Your task to perform on an android device: turn on sleep mode Image 0: 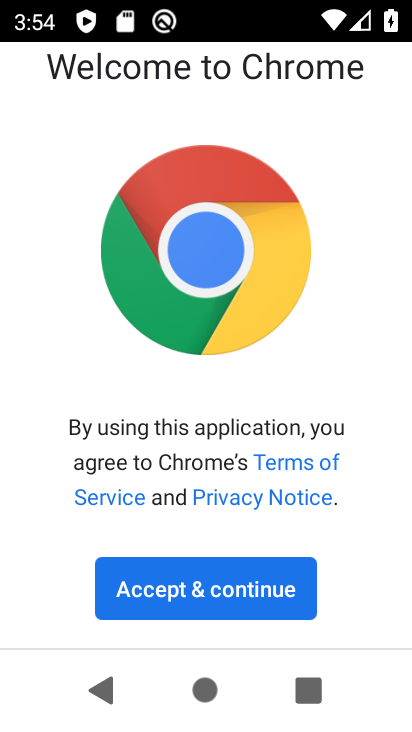
Step 0: press home button
Your task to perform on an android device: turn on sleep mode Image 1: 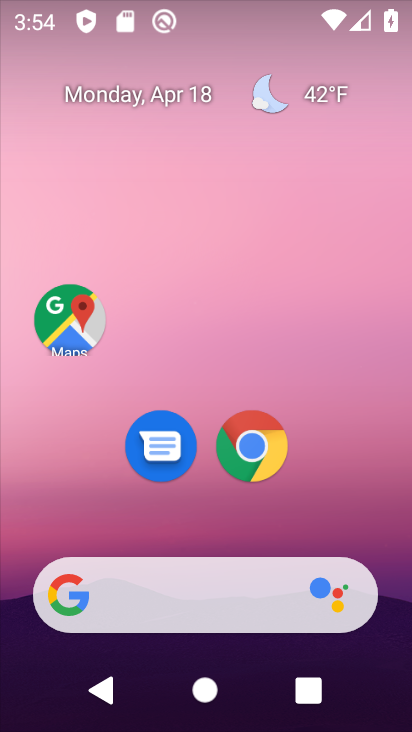
Step 1: drag from (337, 532) to (335, 129)
Your task to perform on an android device: turn on sleep mode Image 2: 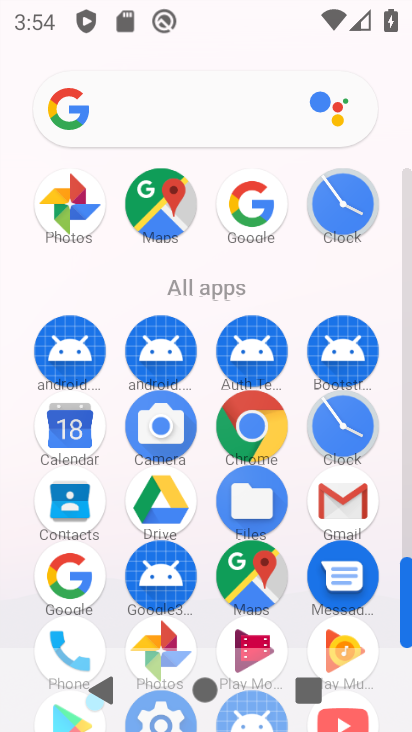
Step 2: drag from (300, 601) to (312, 316)
Your task to perform on an android device: turn on sleep mode Image 3: 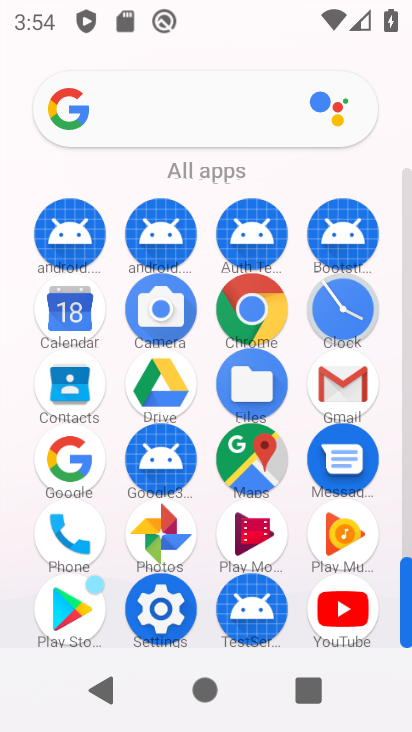
Step 3: click (171, 596)
Your task to perform on an android device: turn on sleep mode Image 4: 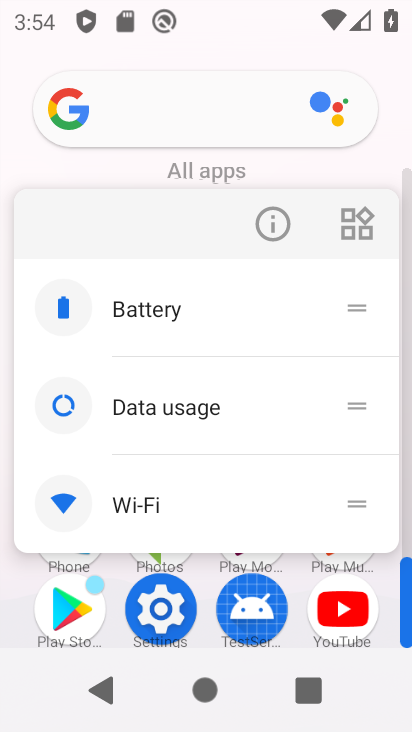
Step 4: click (174, 603)
Your task to perform on an android device: turn on sleep mode Image 5: 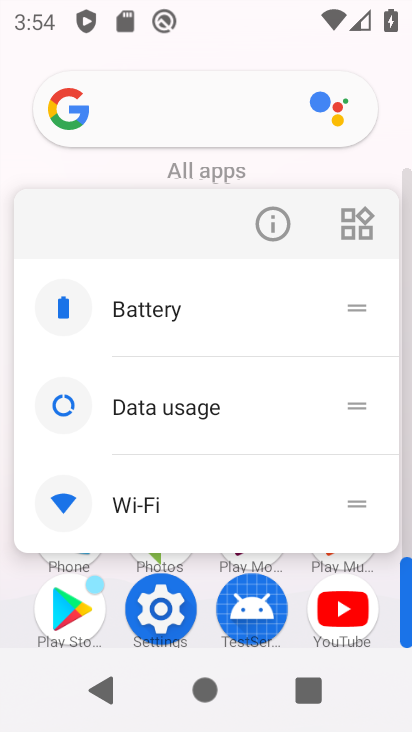
Step 5: click (171, 615)
Your task to perform on an android device: turn on sleep mode Image 6: 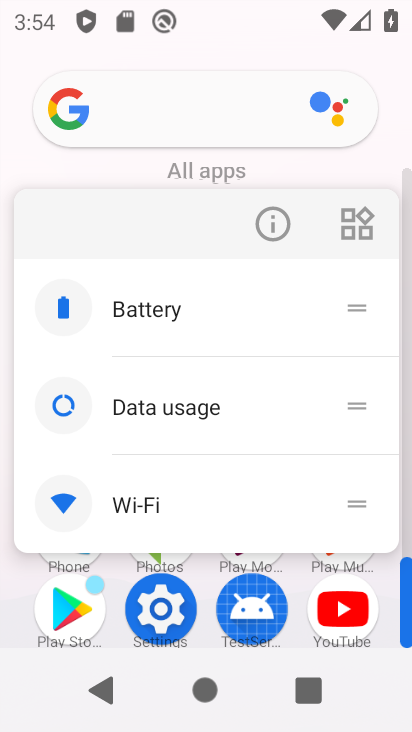
Step 6: click (163, 620)
Your task to perform on an android device: turn on sleep mode Image 7: 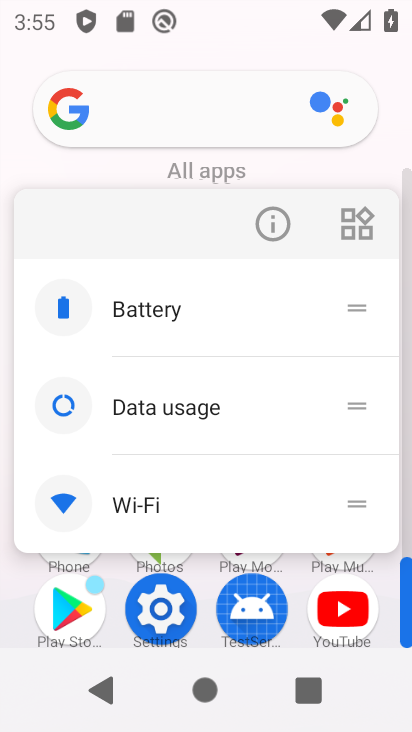
Step 7: click (153, 612)
Your task to perform on an android device: turn on sleep mode Image 8: 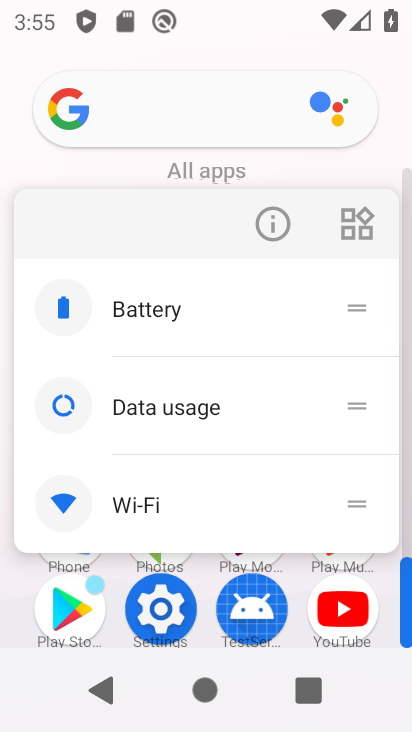
Step 8: click (153, 618)
Your task to perform on an android device: turn on sleep mode Image 9: 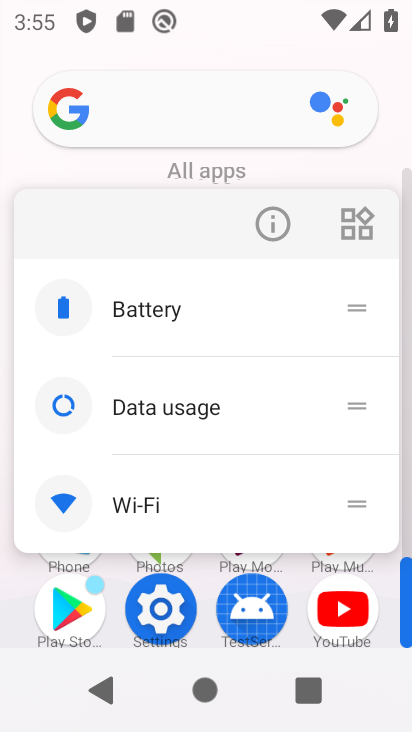
Step 9: click (150, 159)
Your task to perform on an android device: turn on sleep mode Image 10: 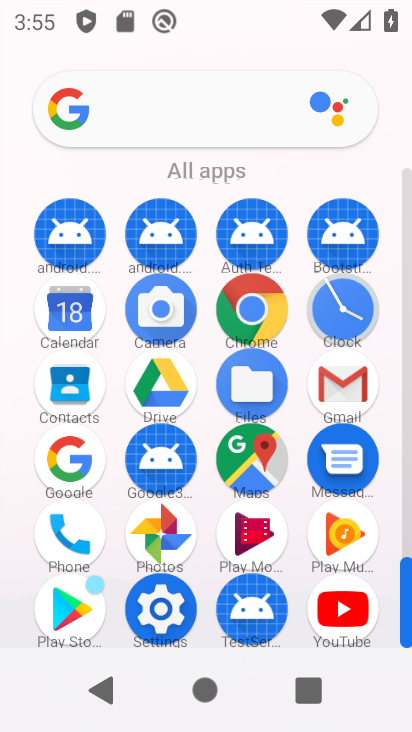
Step 10: drag from (195, 575) to (224, 368)
Your task to perform on an android device: turn on sleep mode Image 11: 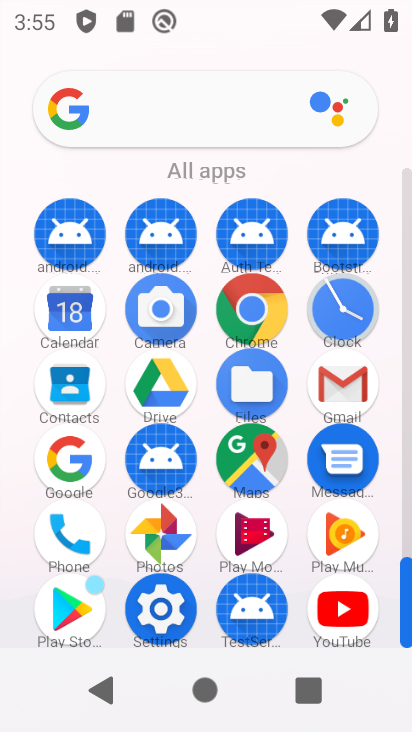
Step 11: click (166, 597)
Your task to perform on an android device: turn on sleep mode Image 12: 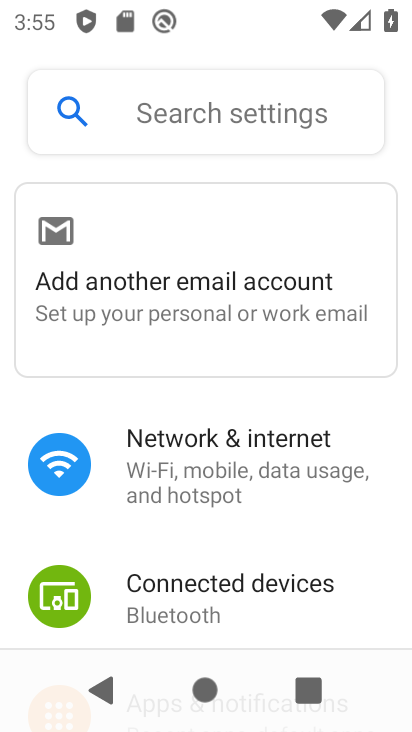
Step 12: drag from (240, 534) to (250, 157)
Your task to perform on an android device: turn on sleep mode Image 13: 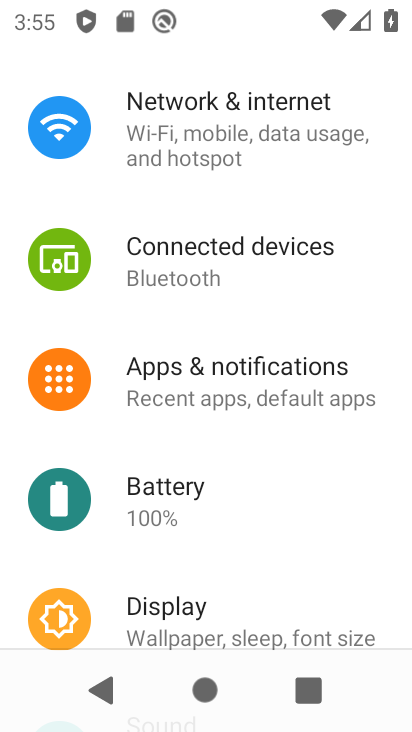
Step 13: drag from (261, 496) to (293, 201)
Your task to perform on an android device: turn on sleep mode Image 14: 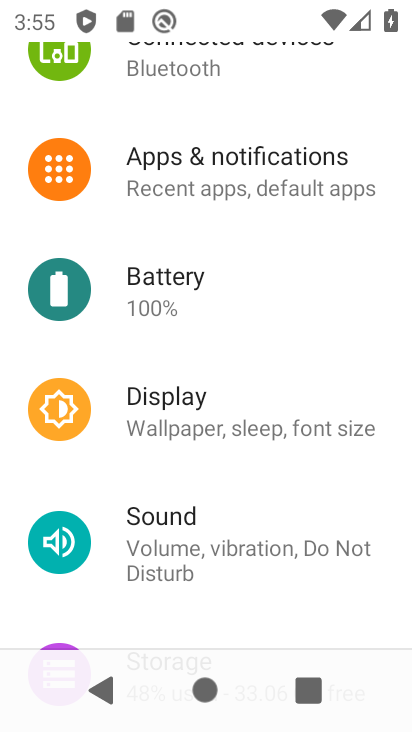
Step 14: click (183, 419)
Your task to perform on an android device: turn on sleep mode Image 15: 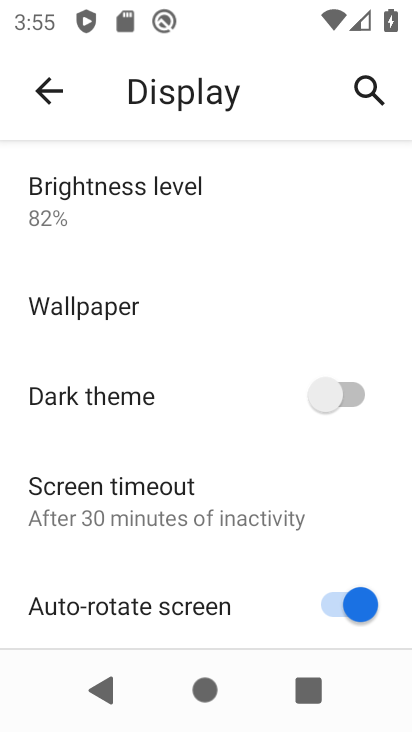
Step 15: click (182, 488)
Your task to perform on an android device: turn on sleep mode Image 16: 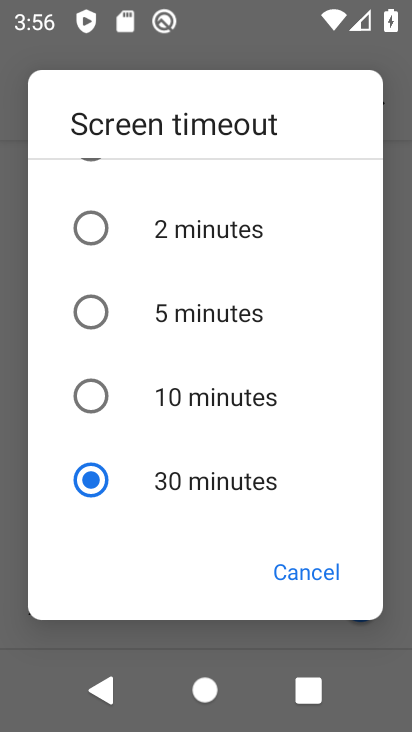
Step 16: task complete